Your task to perform on an android device: Open privacy settings Image 0: 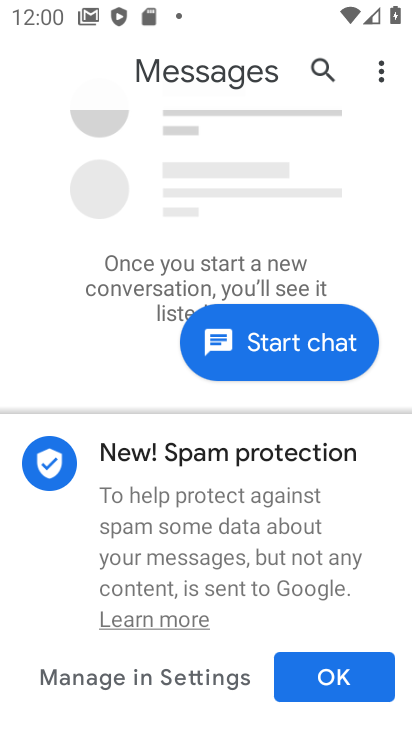
Step 0: press home button
Your task to perform on an android device: Open privacy settings Image 1: 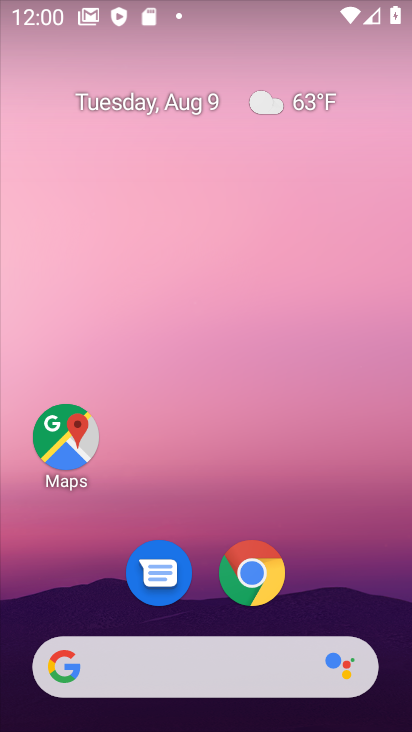
Step 1: click (82, 577)
Your task to perform on an android device: Open privacy settings Image 2: 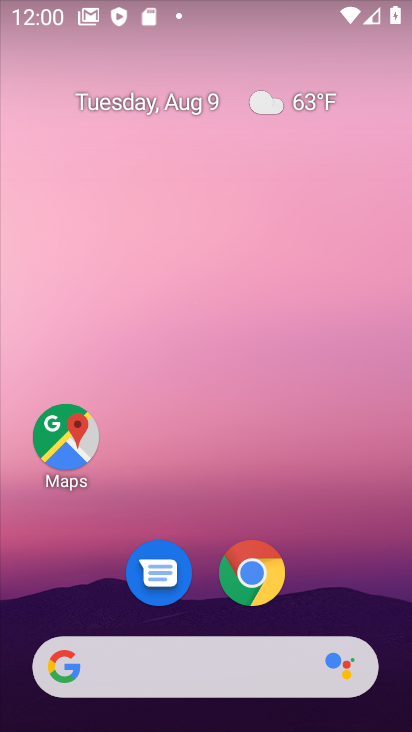
Step 2: drag from (227, 644) to (194, 426)
Your task to perform on an android device: Open privacy settings Image 3: 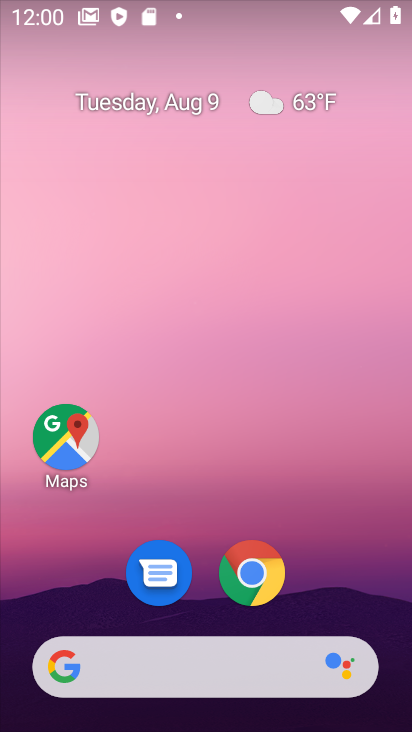
Step 3: drag from (125, 617) to (99, 284)
Your task to perform on an android device: Open privacy settings Image 4: 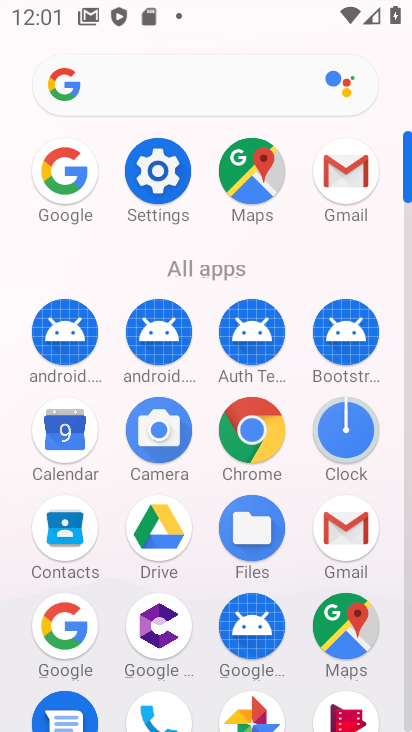
Step 4: click (161, 144)
Your task to perform on an android device: Open privacy settings Image 5: 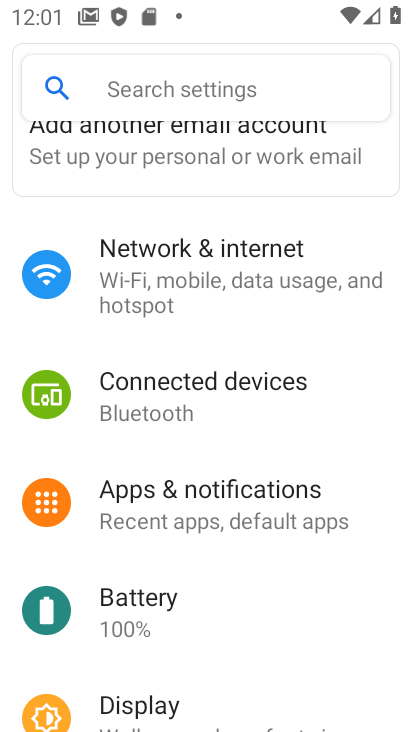
Step 5: drag from (170, 614) to (94, 251)
Your task to perform on an android device: Open privacy settings Image 6: 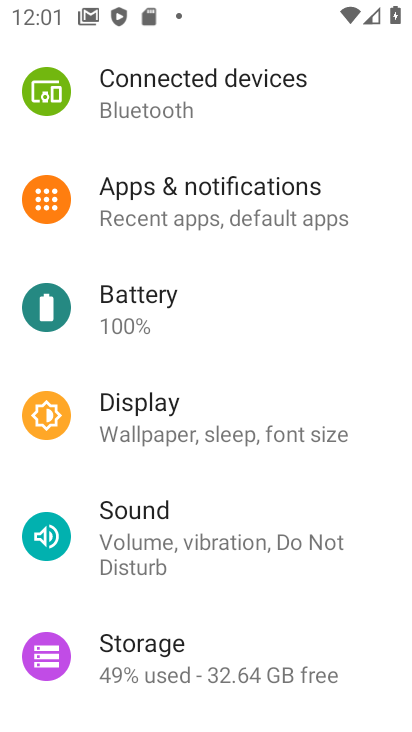
Step 6: drag from (160, 629) to (98, 284)
Your task to perform on an android device: Open privacy settings Image 7: 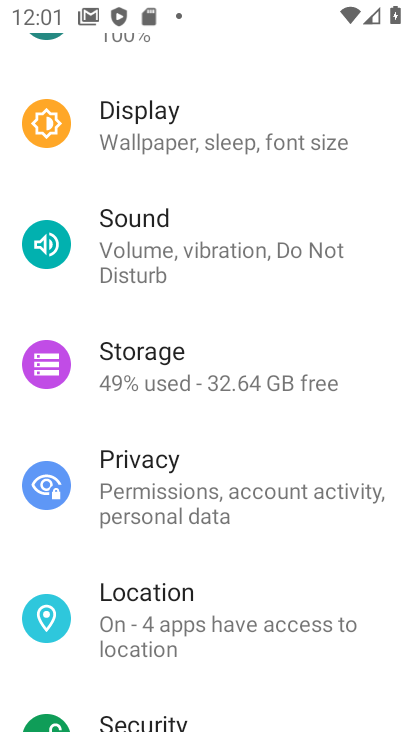
Step 7: drag from (170, 659) to (101, 317)
Your task to perform on an android device: Open privacy settings Image 8: 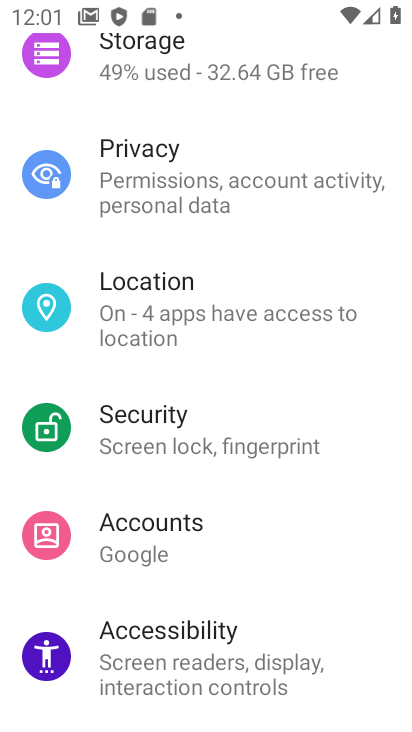
Step 8: drag from (193, 623) to (121, 384)
Your task to perform on an android device: Open privacy settings Image 9: 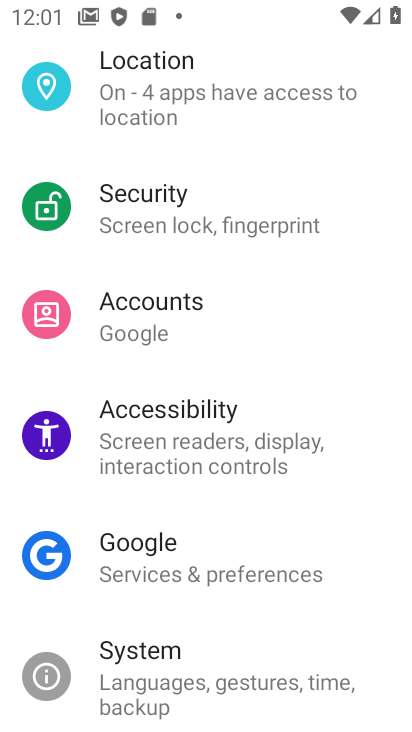
Step 9: drag from (150, 670) to (54, 224)
Your task to perform on an android device: Open privacy settings Image 10: 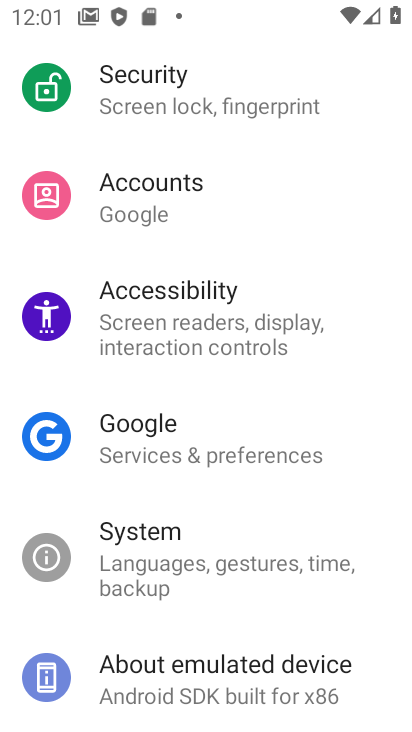
Step 10: drag from (143, 147) to (241, 550)
Your task to perform on an android device: Open privacy settings Image 11: 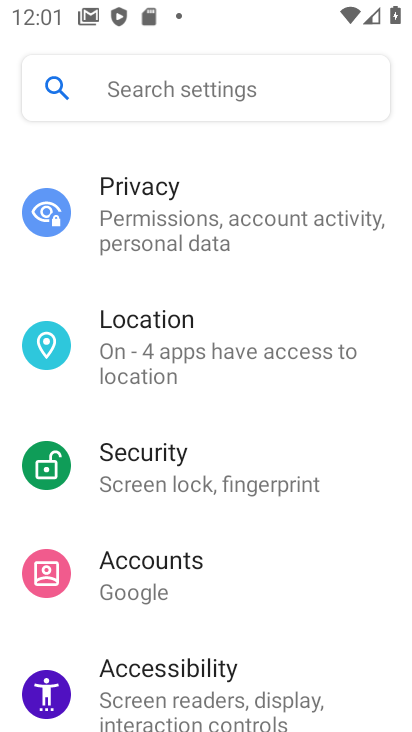
Step 11: click (109, 206)
Your task to perform on an android device: Open privacy settings Image 12: 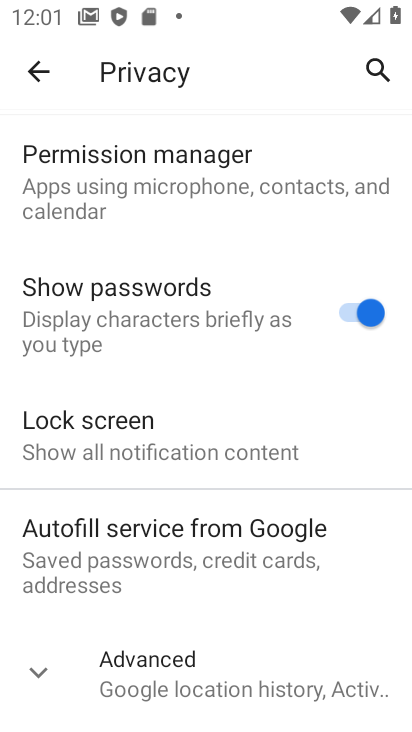
Step 12: task complete